Your task to perform on an android device: Open Maps and search for coffee Image 0: 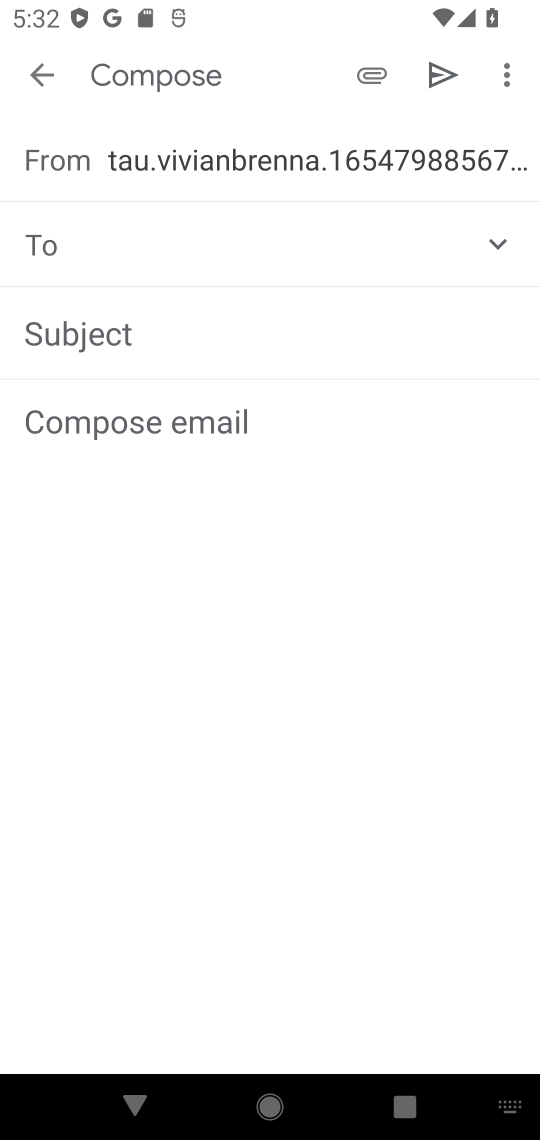
Step 0: press home button
Your task to perform on an android device: Open Maps and search for coffee Image 1: 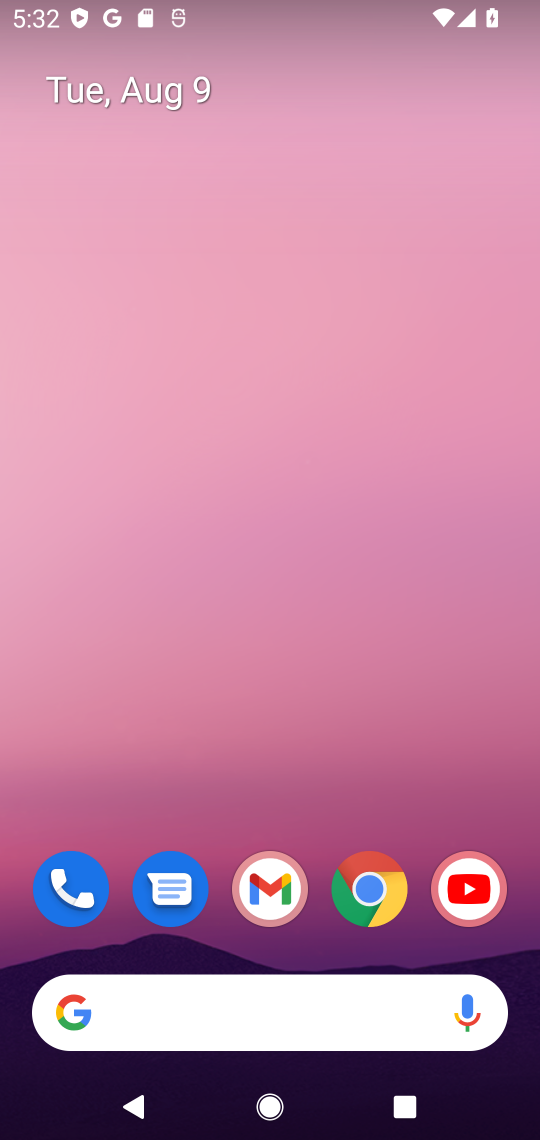
Step 1: drag from (242, 974) to (332, 201)
Your task to perform on an android device: Open Maps and search for coffee Image 2: 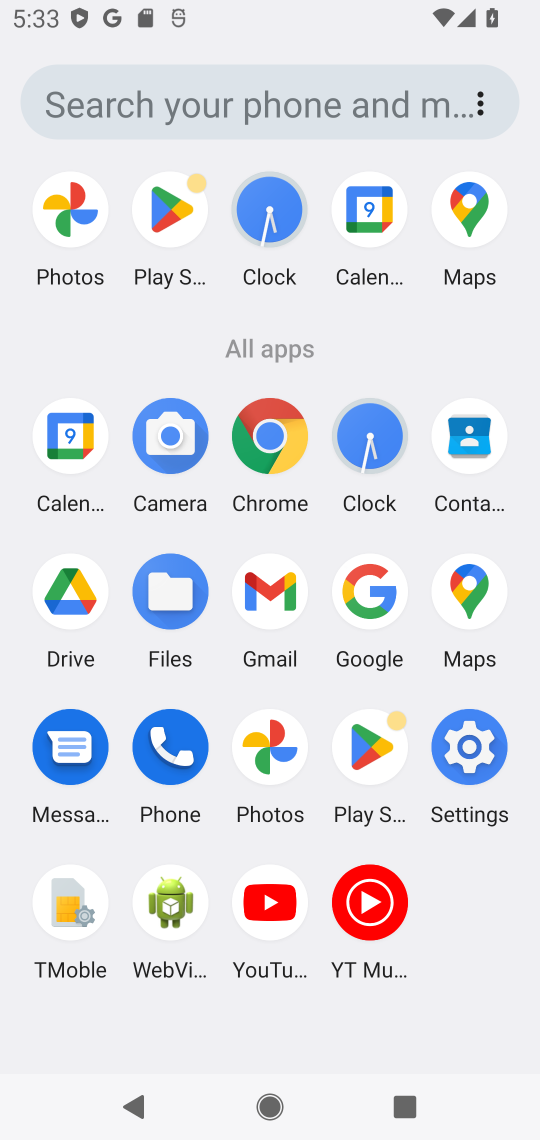
Step 2: click (467, 587)
Your task to perform on an android device: Open Maps and search for coffee Image 3: 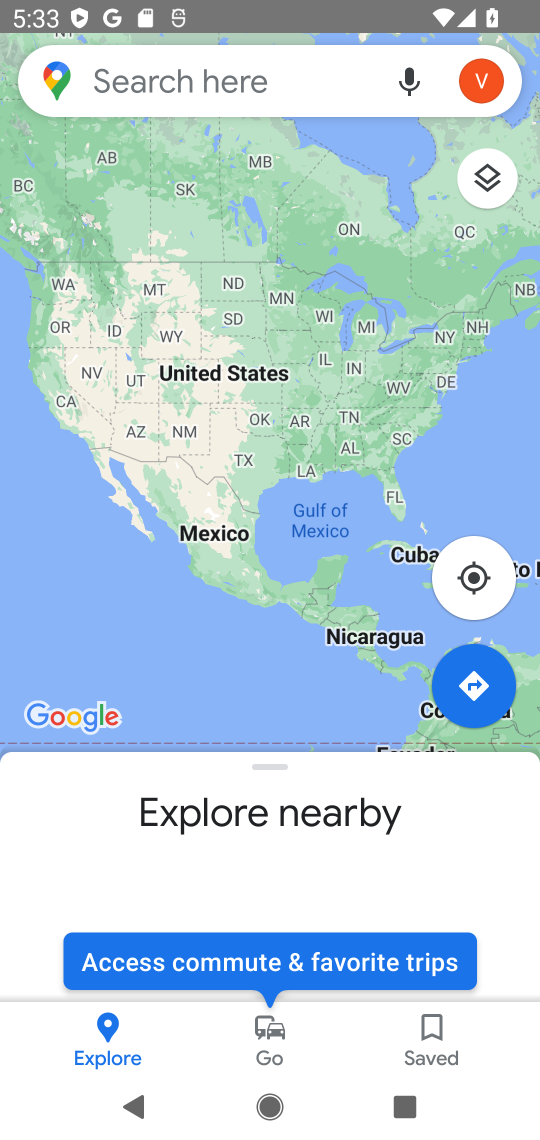
Step 3: click (290, 80)
Your task to perform on an android device: Open Maps and search for coffee Image 4: 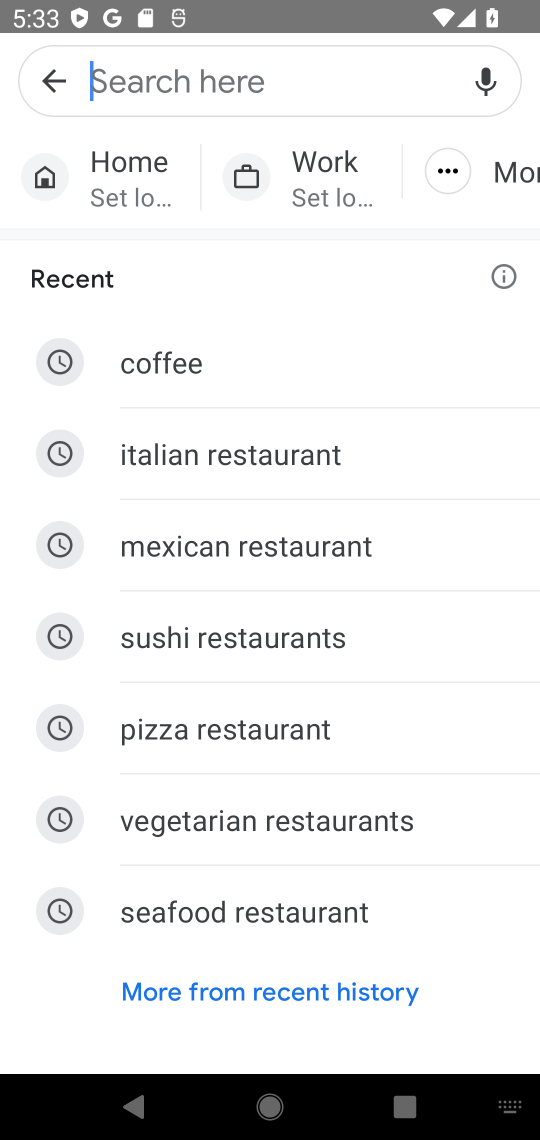
Step 4: click (206, 370)
Your task to perform on an android device: Open Maps and search for coffee Image 5: 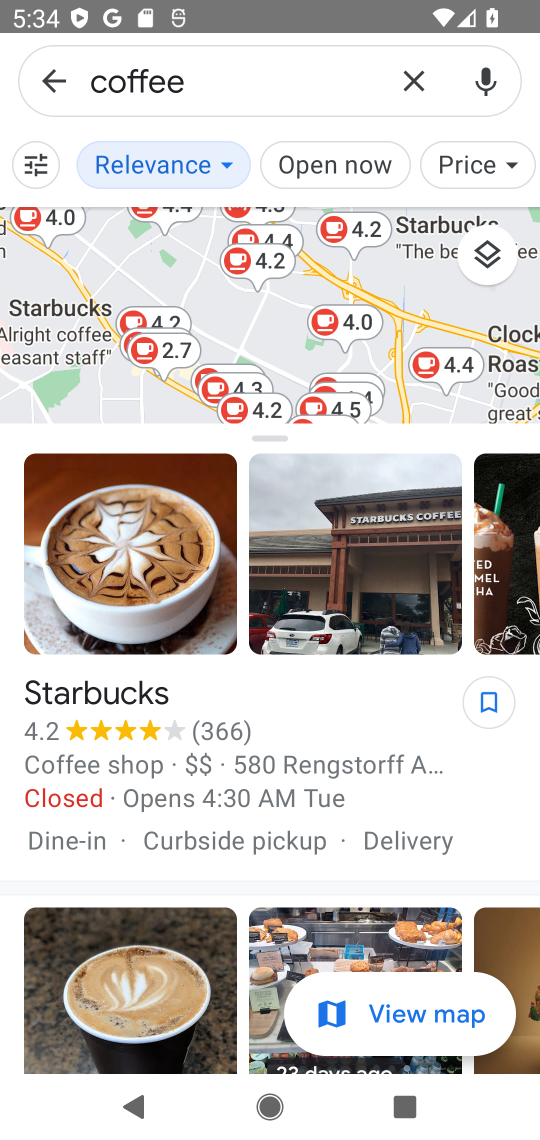
Step 5: task complete